Your task to perform on an android device: Do I have any events this weekend? Image 0: 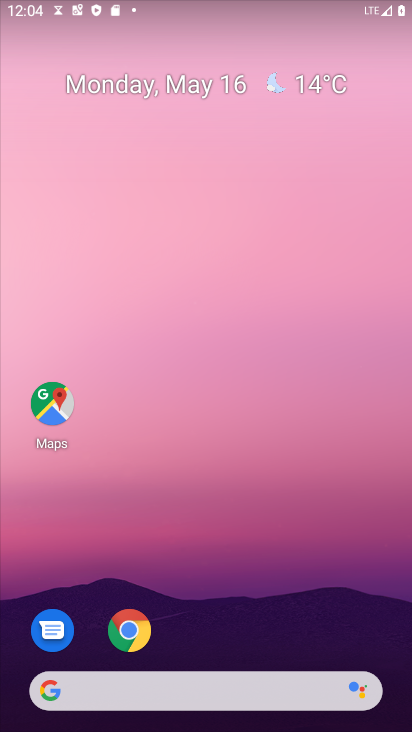
Step 0: press home button
Your task to perform on an android device: Do I have any events this weekend? Image 1: 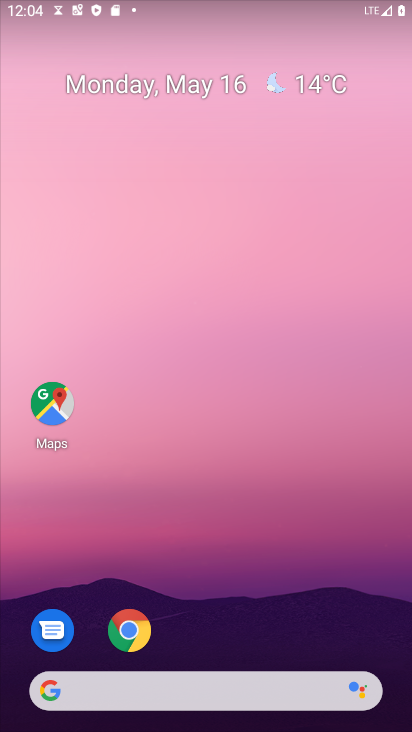
Step 1: drag from (27, 616) to (241, 14)
Your task to perform on an android device: Do I have any events this weekend? Image 2: 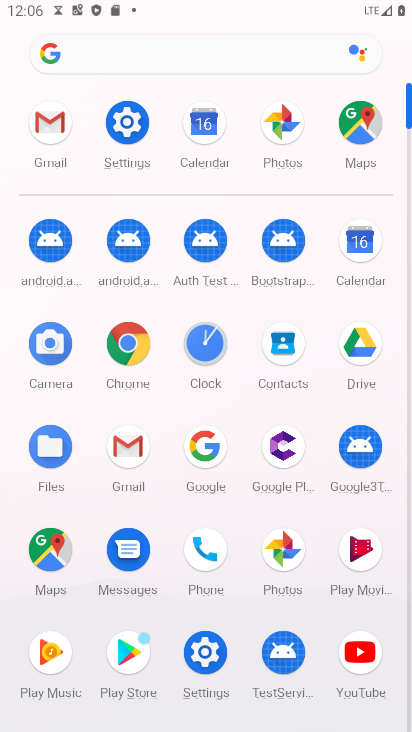
Step 2: press home button
Your task to perform on an android device: Do I have any events this weekend? Image 3: 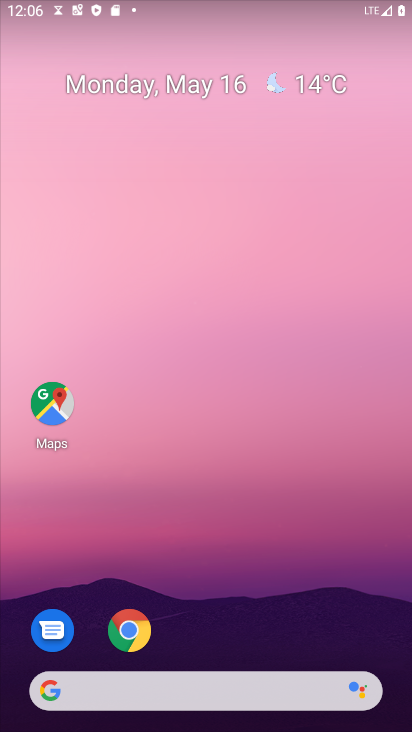
Step 3: drag from (102, 406) to (214, 87)
Your task to perform on an android device: Do I have any events this weekend? Image 4: 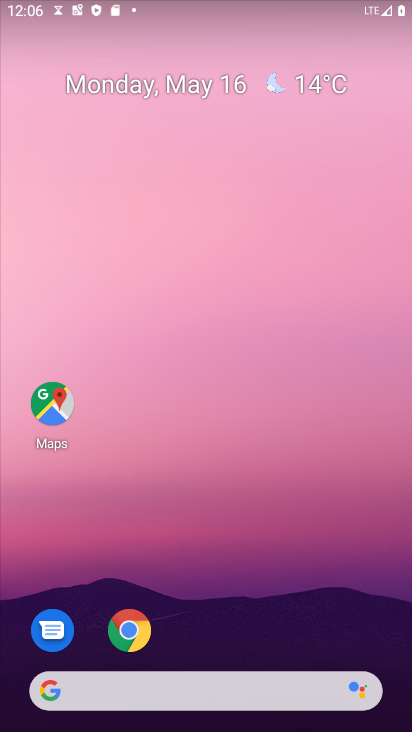
Step 4: drag from (21, 451) to (166, 4)
Your task to perform on an android device: Do I have any events this weekend? Image 5: 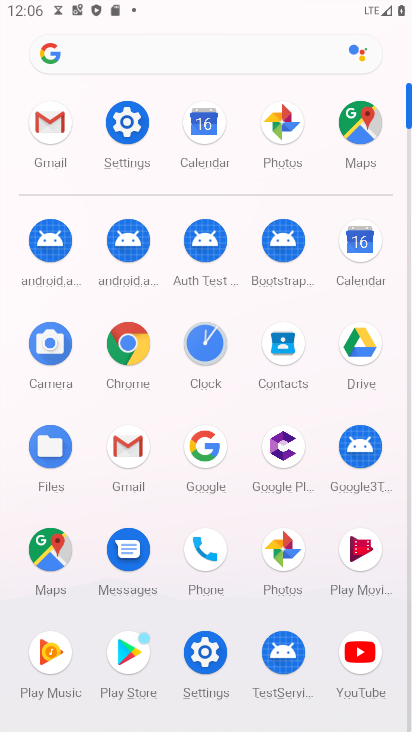
Step 5: click (343, 238)
Your task to perform on an android device: Do I have any events this weekend? Image 6: 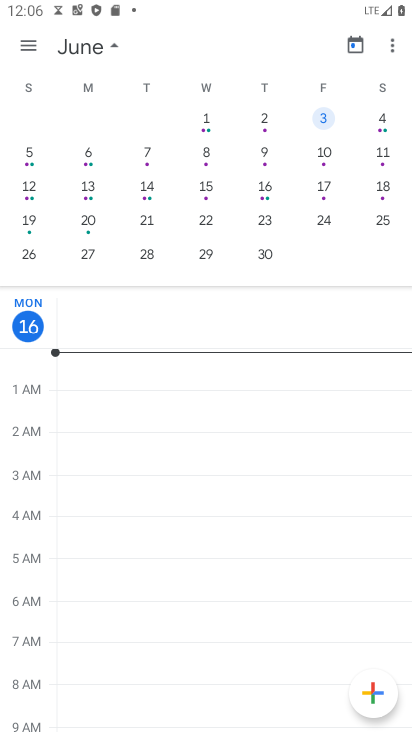
Step 6: drag from (144, 216) to (406, 209)
Your task to perform on an android device: Do I have any events this weekend? Image 7: 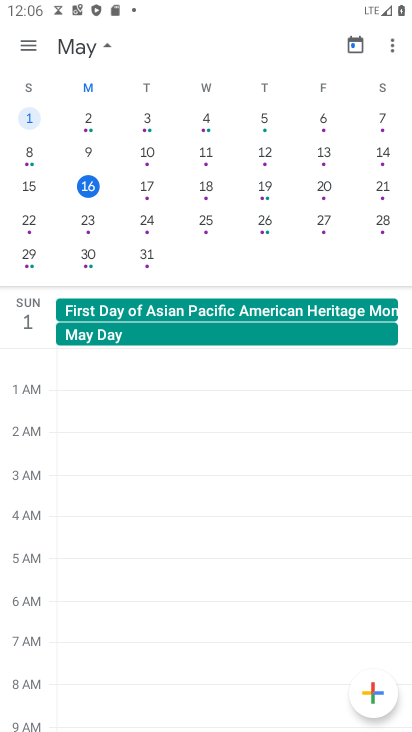
Step 7: click (27, 186)
Your task to perform on an android device: Do I have any events this weekend? Image 8: 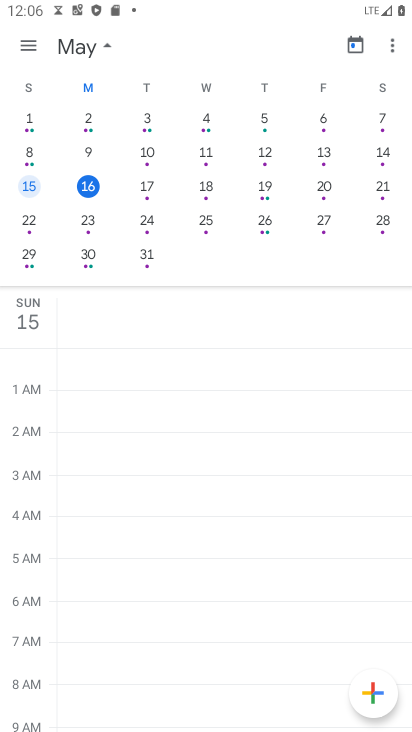
Step 8: click (379, 187)
Your task to perform on an android device: Do I have any events this weekend? Image 9: 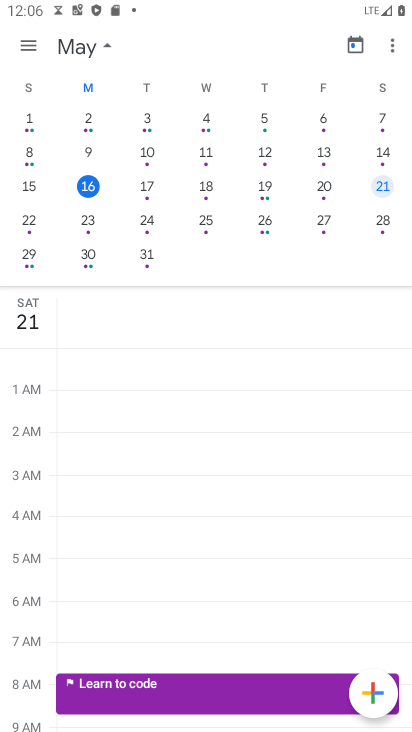
Step 9: click (16, 229)
Your task to perform on an android device: Do I have any events this weekend? Image 10: 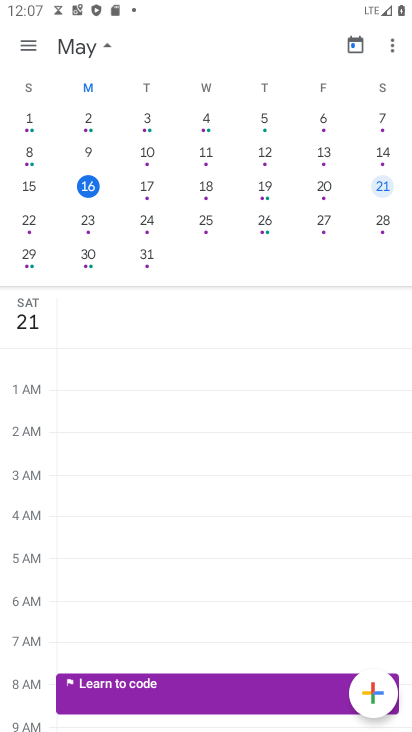
Step 10: task complete